Your task to perform on an android device: search for starred emails in the gmail app Image 0: 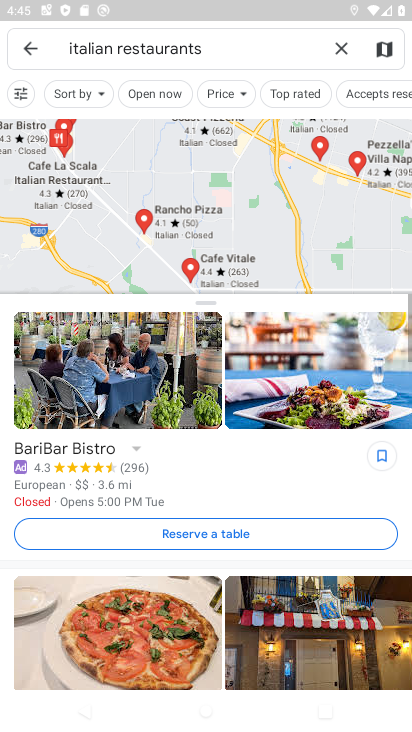
Step 0: press home button
Your task to perform on an android device: search for starred emails in the gmail app Image 1: 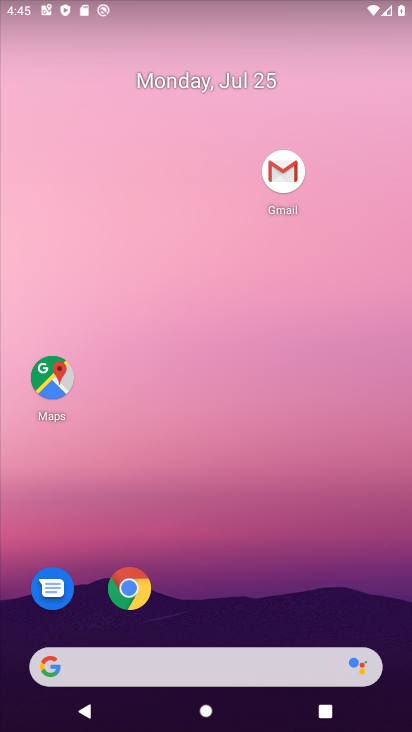
Step 1: drag from (335, 590) to (320, 113)
Your task to perform on an android device: search for starred emails in the gmail app Image 2: 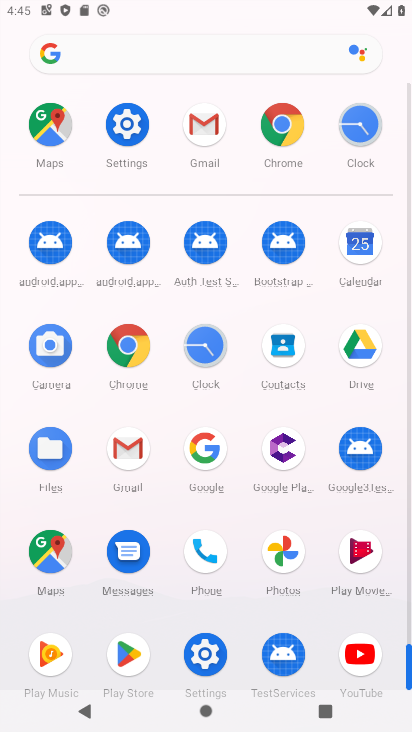
Step 2: click (196, 121)
Your task to perform on an android device: search for starred emails in the gmail app Image 3: 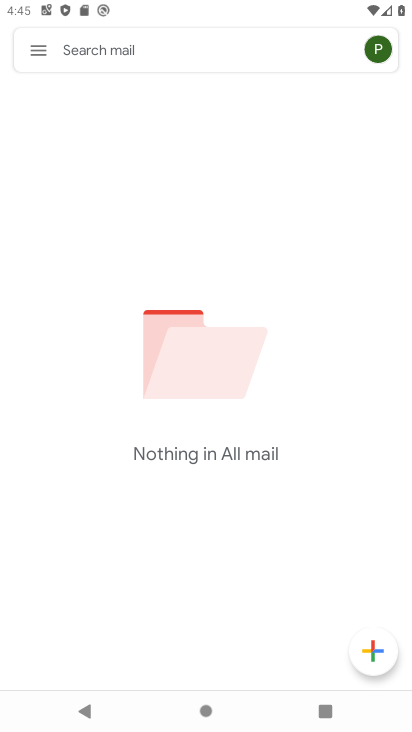
Step 3: click (29, 47)
Your task to perform on an android device: search for starred emails in the gmail app Image 4: 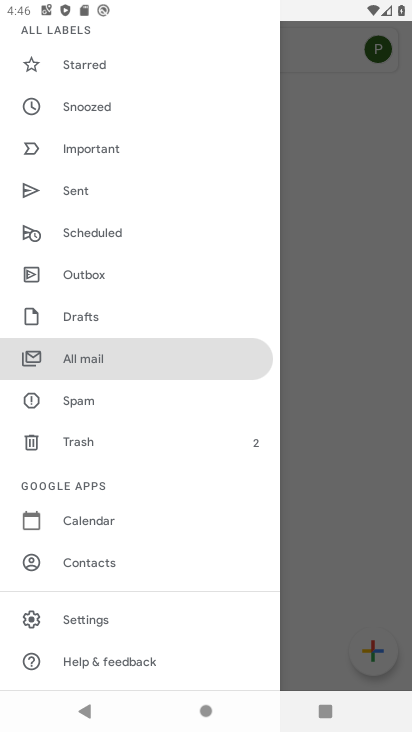
Step 4: click (89, 64)
Your task to perform on an android device: search for starred emails in the gmail app Image 5: 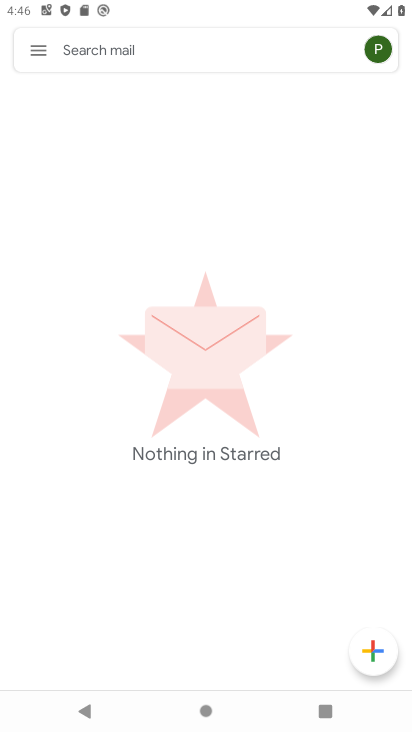
Step 5: press home button
Your task to perform on an android device: search for starred emails in the gmail app Image 6: 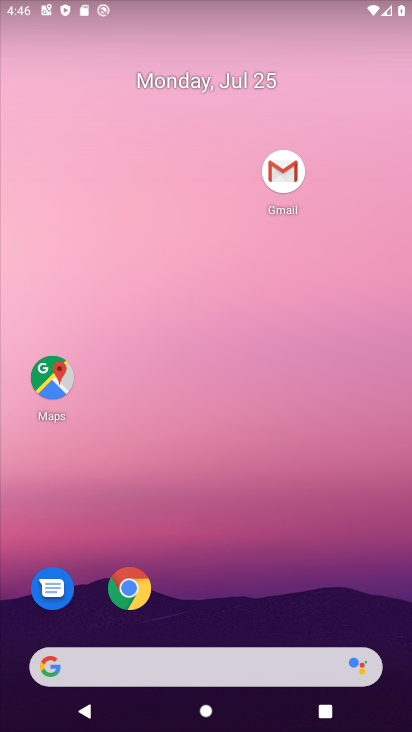
Step 6: drag from (355, 599) to (202, 118)
Your task to perform on an android device: search for starred emails in the gmail app Image 7: 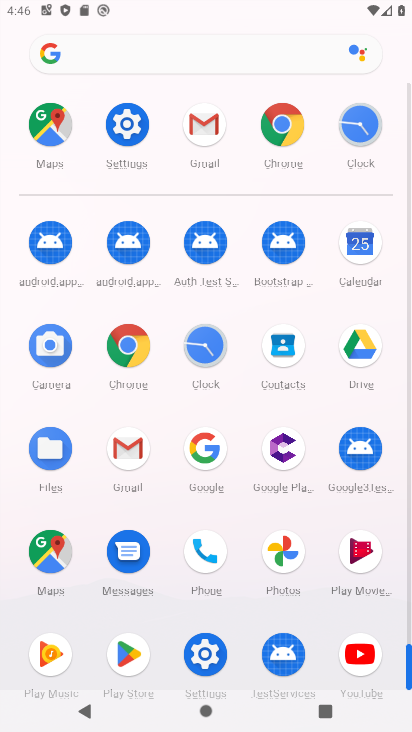
Step 7: click (215, 130)
Your task to perform on an android device: search for starred emails in the gmail app Image 8: 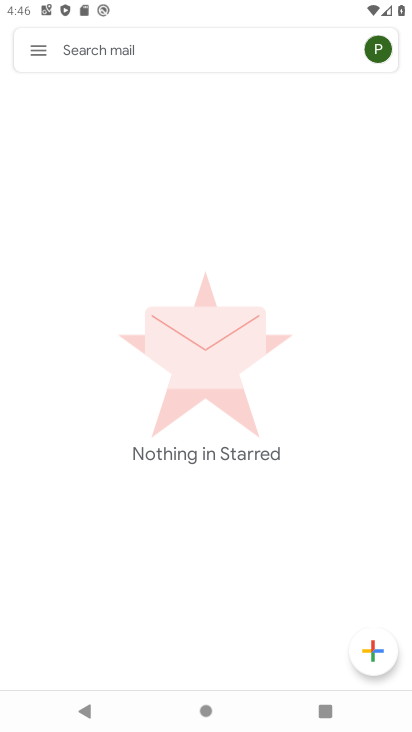
Step 8: click (47, 59)
Your task to perform on an android device: search for starred emails in the gmail app Image 9: 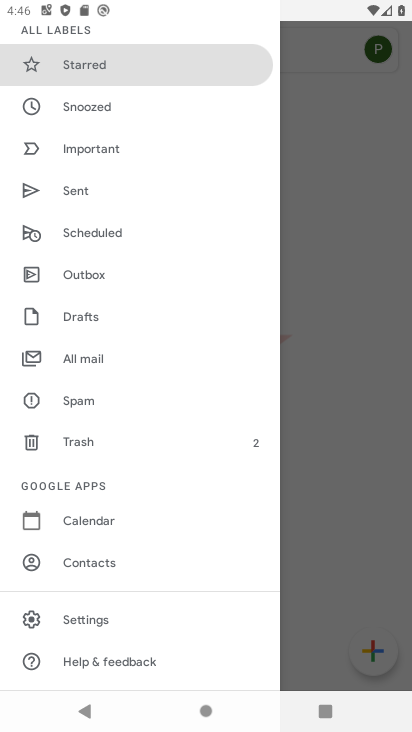
Step 9: click (51, 59)
Your task to perform on an android device: search for starred emails in the gmail app Image 10: 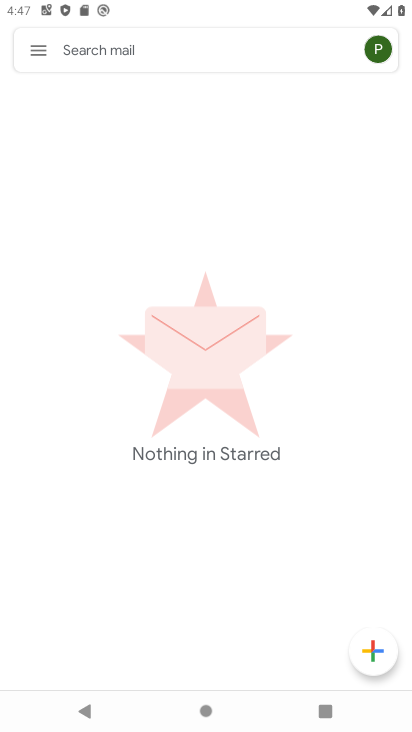
Step 10: task complete